Your task to perform on an android device: Play the last video I watched on Youtube Image 0: 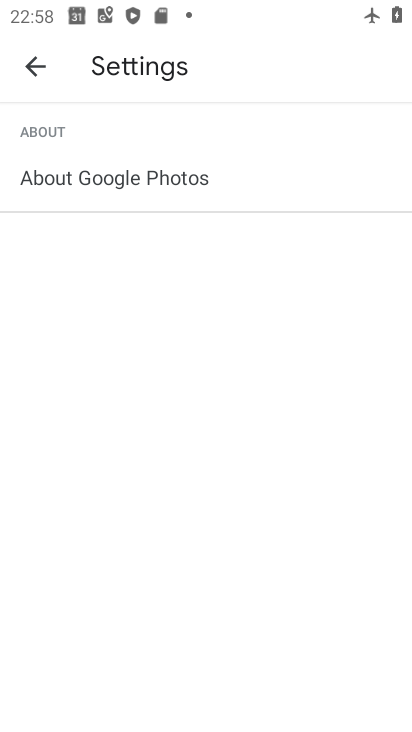
Step 0: press home button
Your task to perform on an android device: Play the last video I watched on Youtube Image 1: 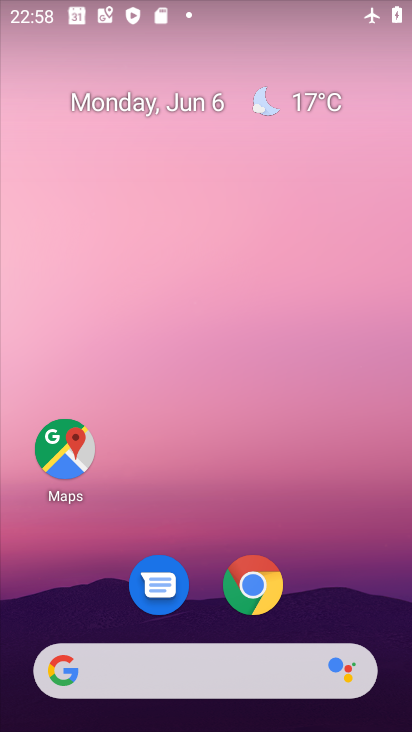
Step 1: drag from (329, 582) to (282, 35)
Your task to perform on an android device: Play the last video I watched on Youtube Image 2: 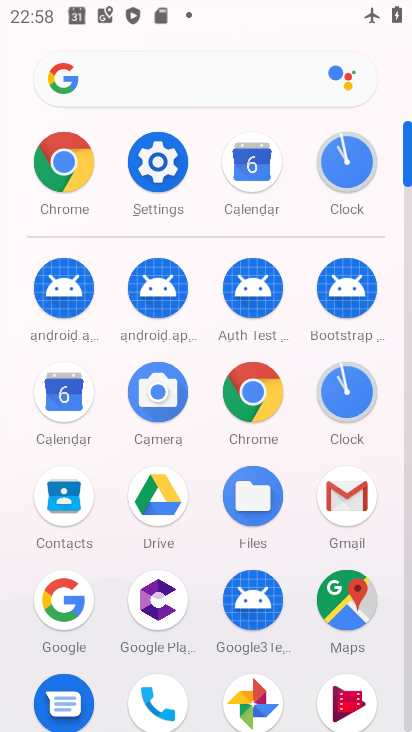
Step 2: drag from (306, 486) to (284, 151)
Your task to perform on an android device: Play the last video I watched on Youtube Image 3: 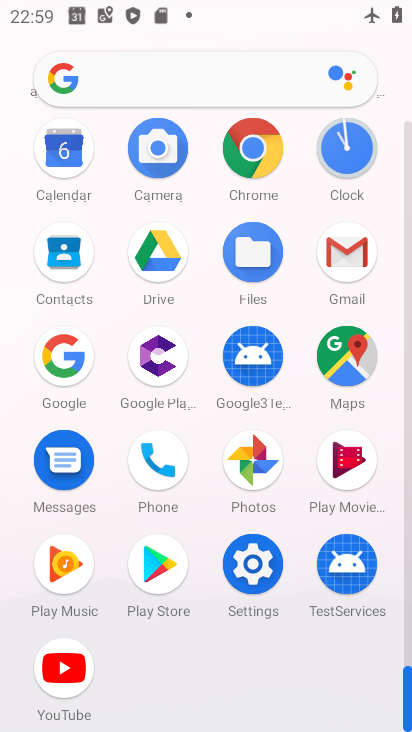
Step 3: click (72, 650)
Your task to perform on an android device: Play the last video I watched on Youtube Image 4: 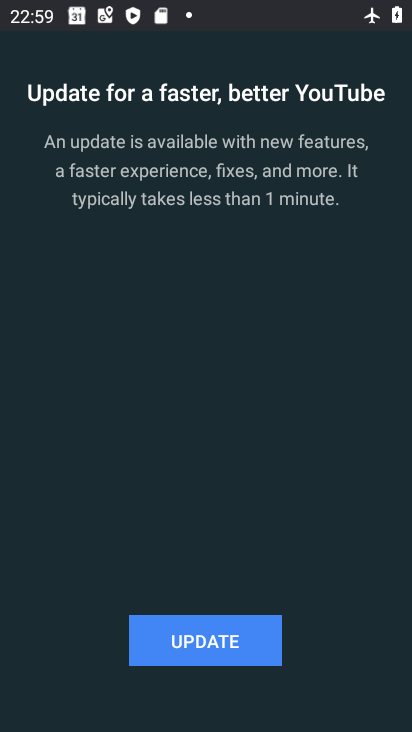
Step 4: click (238, 632)
Your task to perform on an android device: Play the last video I watched on Youtube Image 5: 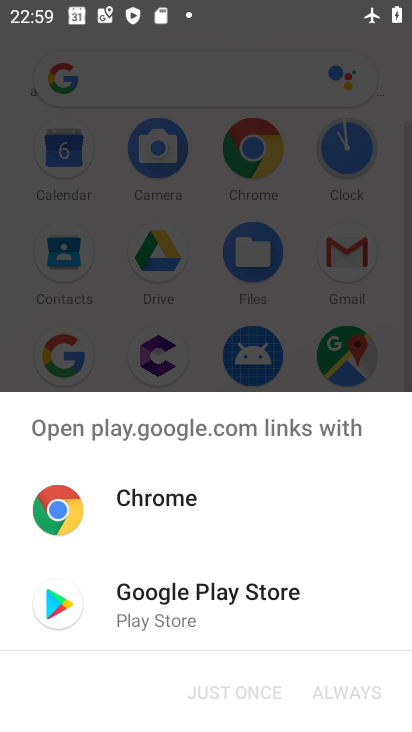
Step 5: click (232, 582)
Your task to perform on an android device: Play the last video I watched on Youtube Image 6: 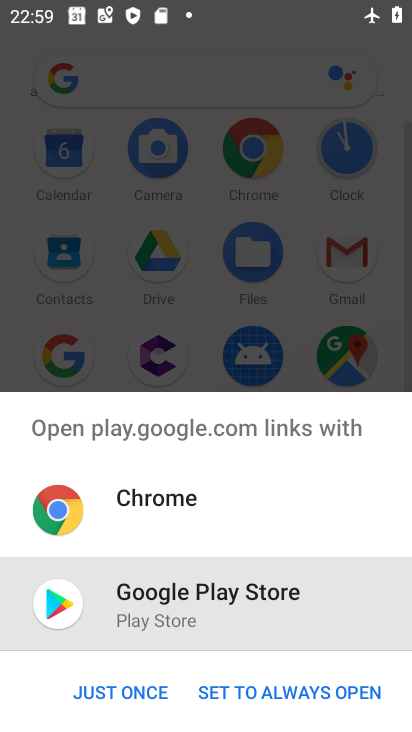
Step 6: click (143, 684)
Your task to perform on an android device: Play the last video I watched on Youtube Image 7: 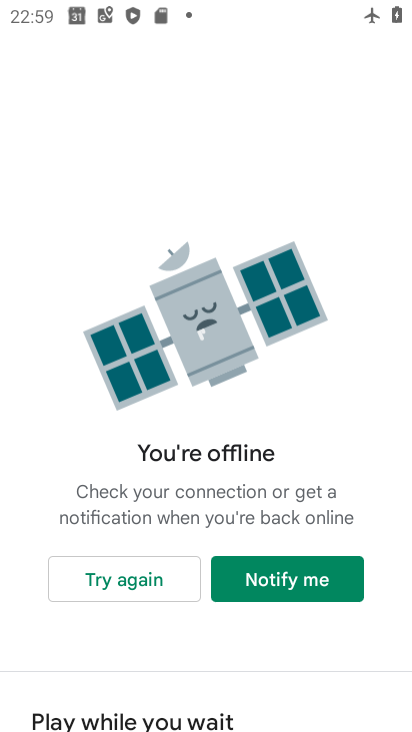
Step 7: task complete